Your task to perform on an android device: open device folders in google photos Image 0: 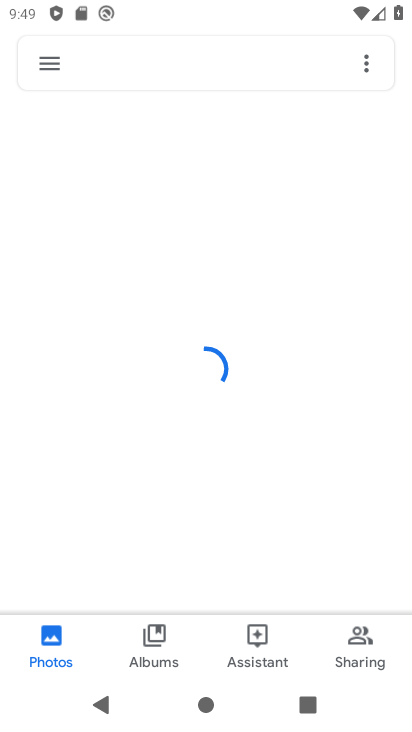
Step 0: press home button
Your task to perform on an android device: open device folders in google photos Image 1: 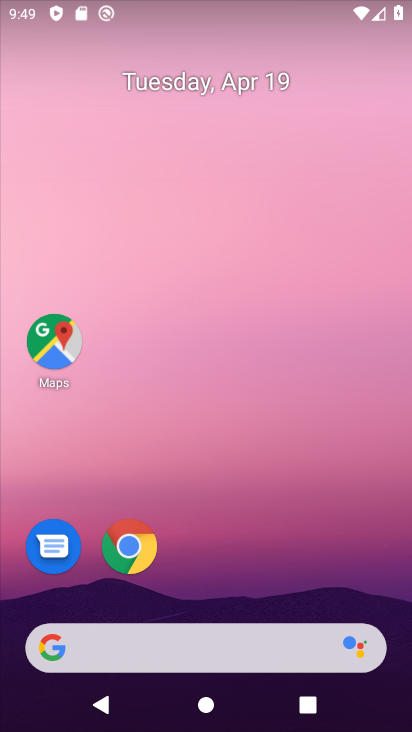
Step 1: drag from (279, 292) to (276, 46)
Your task to perform on an android device: open device folders in google photos Image 2: 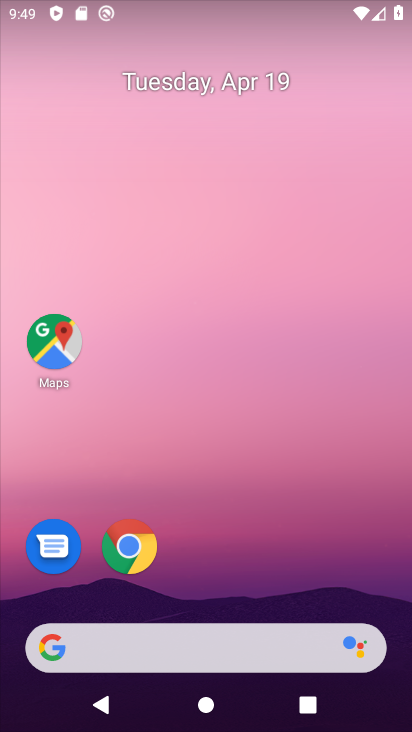
Step 2: drag from (212, 560) to (270, 25)
Your task to perform on an android device: open device folders in google photos Image 3: 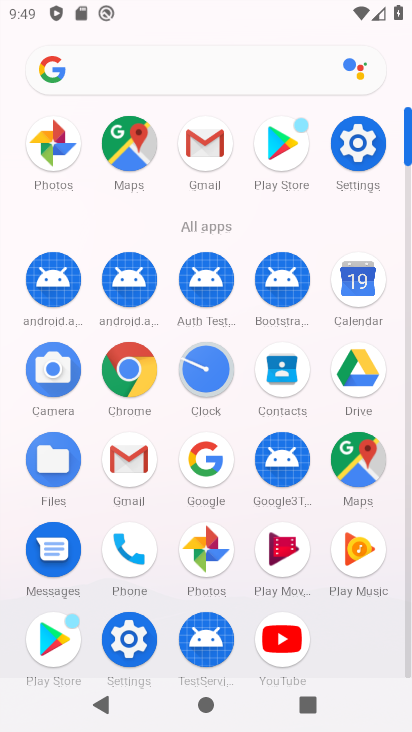
Step 3: click (205, 549)
Your task to perform on an android device: open device folders in google photos Image 4: 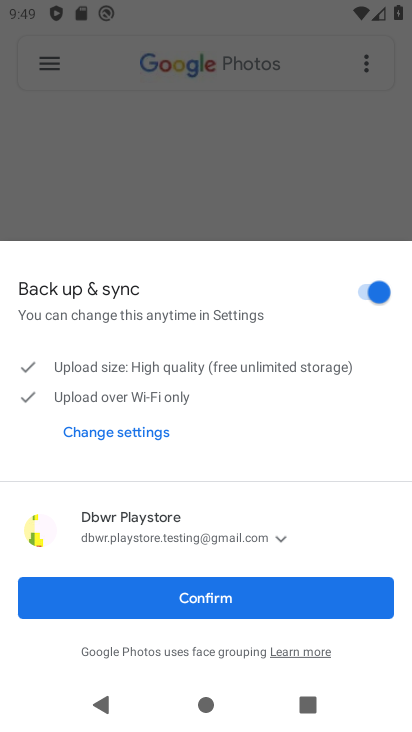
Step 4: click (212, 609)
Your task to perform on an android device: open device folders in google photos Image 5: 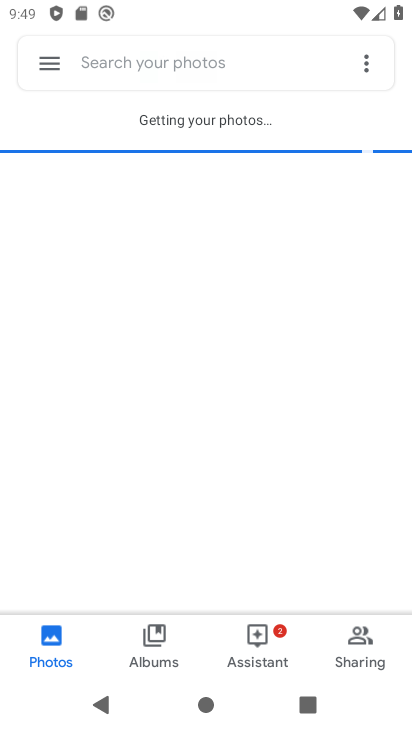
Step 5: click (41, 61)
Your task to perform on an android device: open device folders in google photos Image 6: 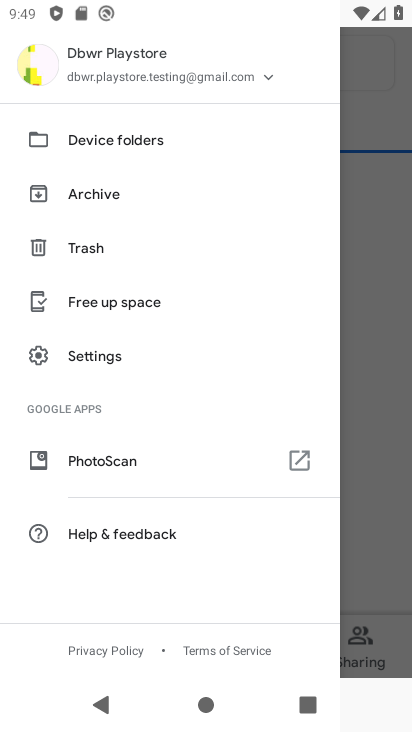
Step 6: click (132, 143)
Your task to perform on an android device: open device folders in google photos Image 7: 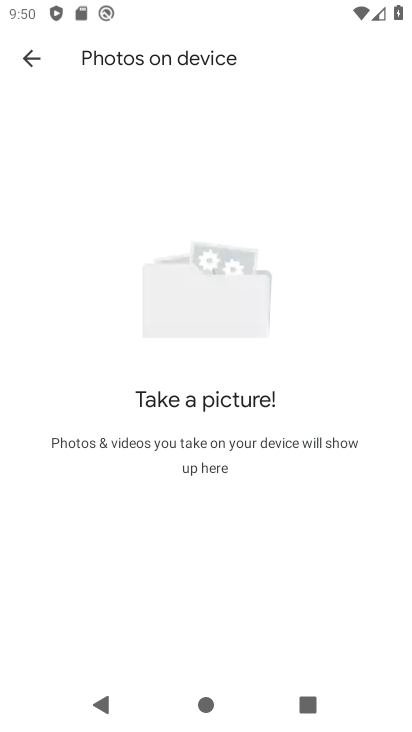
Step 7: task complete